Your task to perform on an android device: turn notification dots on Image 0: 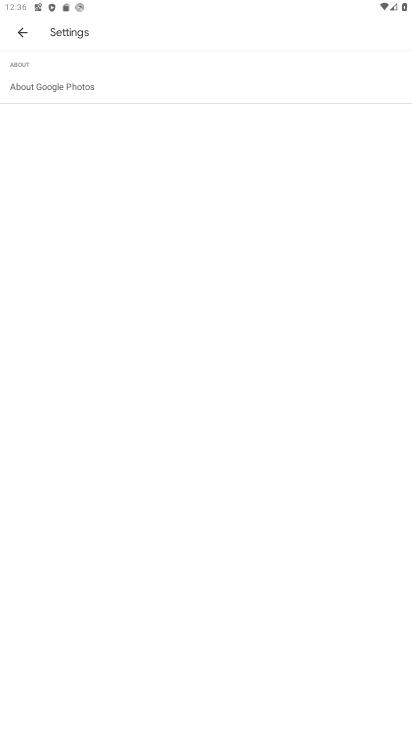
Step 0: press home button
Your task to perform on an android device: turn notification dots on Image 1: 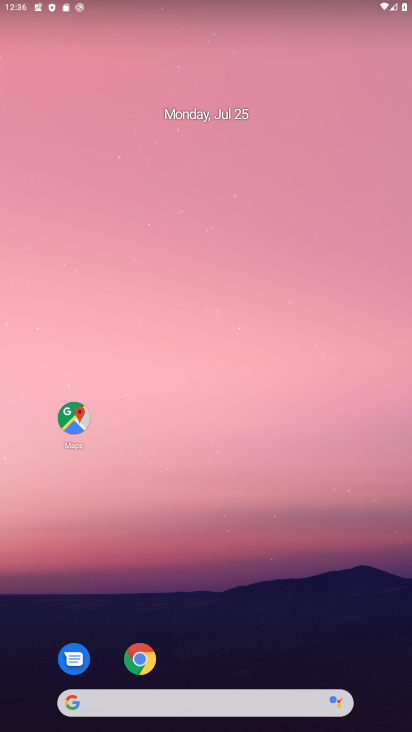
Step 1: drag from (232, 638) to (392, 94)
Your task to perform on an android device: turn notification dots on Image 2: 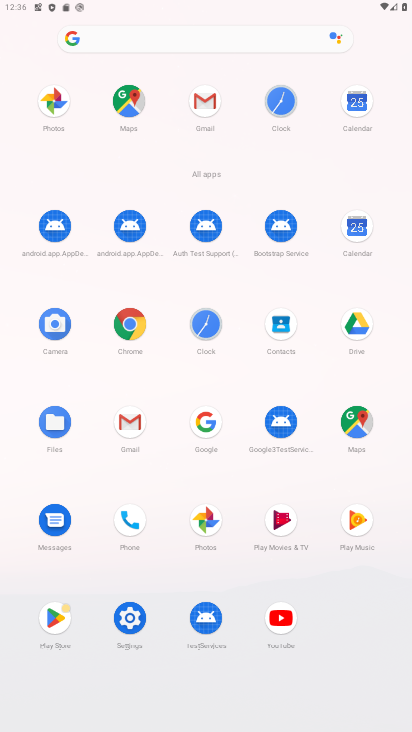
Step 2: click (121, 630)
Your task to perform on an android device: turn notification dots on Image 3: 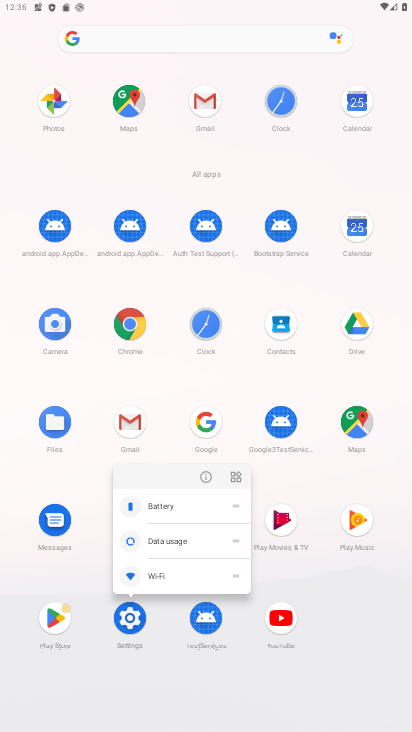
Step 3: click (129, 620)
Your task to perform on an android device: turn notification dots on Image 4: 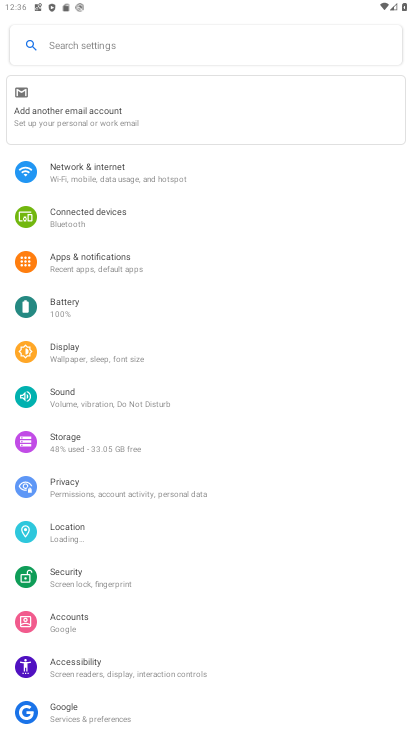
Step 4: click (109, 263)
Your task to perform on an android device: turn notification dots on Image 5: 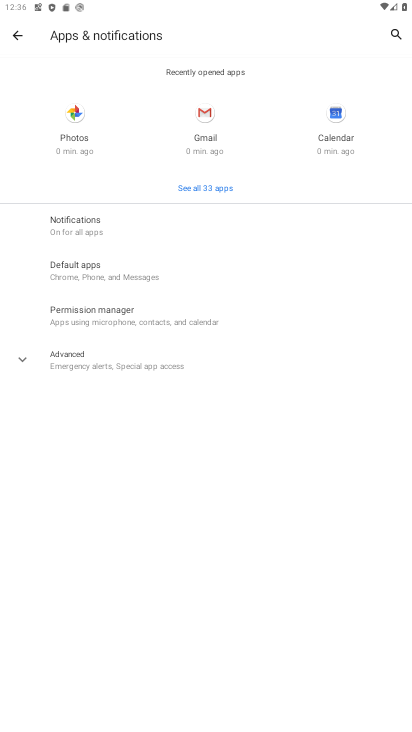
Step 5: click (75, 227)
Your task to perform on an android device: turn notification dots on Image 6: 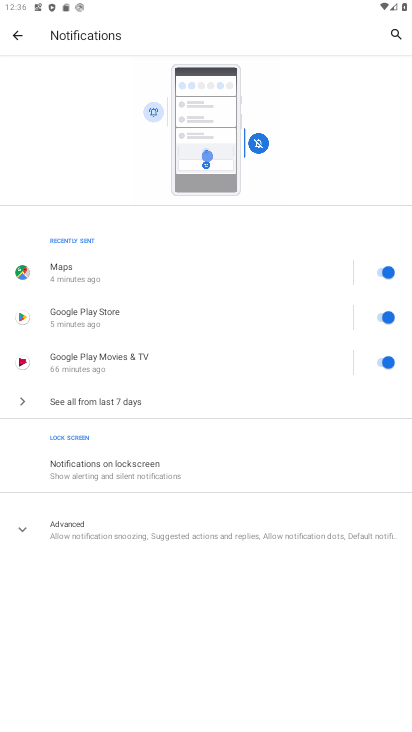
Step 6: click (123, 538)
Your task to perform on an android device: turn notification dots on Image 7: 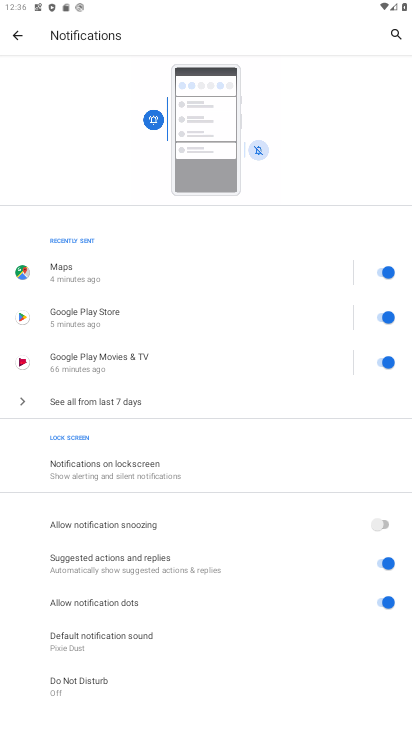
Step 7: task complete